Your task to perform on an android device: check google app version Image 0: 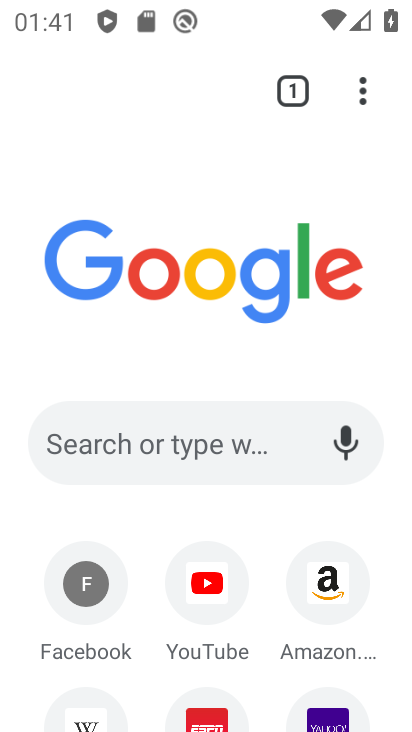
Step 0: press home button
Your task to perform on an android device: check google app version Image 1: 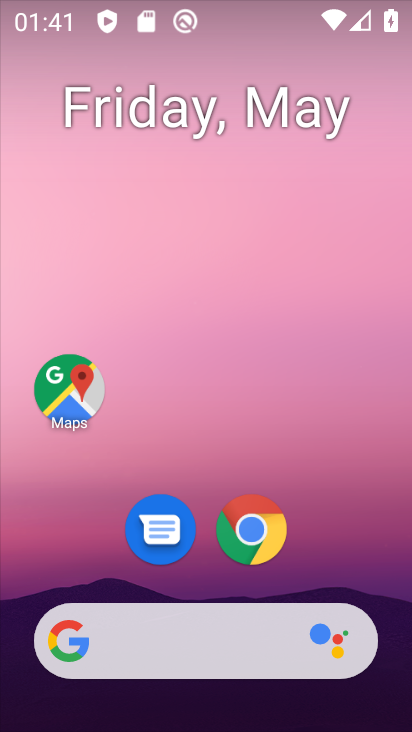
Step 1: drag from (338, 531) to (329, 96)
Your task to perform on an android device: check google app version Image 2: 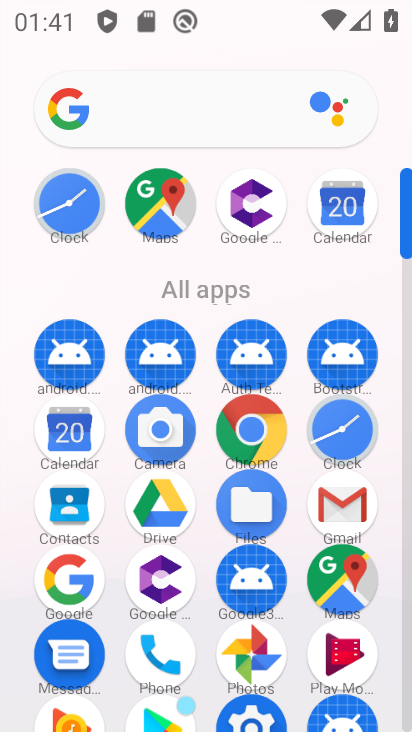
Step 2: click (76, 587)
Your task to perform on an android device: check google app version Image 3: 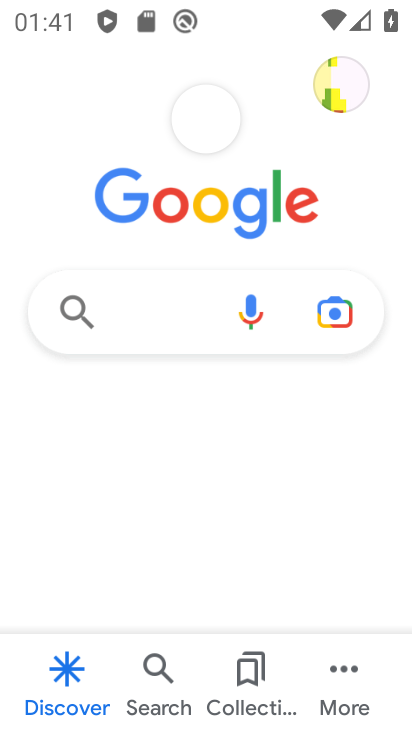
Step 3: click (337, 689)
Your task to perform on an android device: check google app version Image 4: 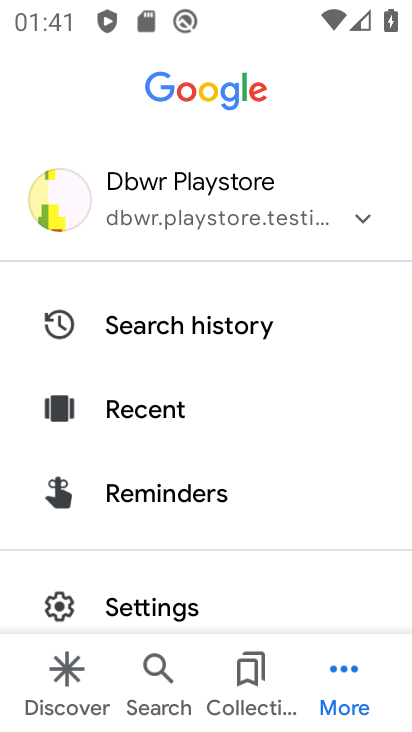
Step 4: drag from (195, 518) to (220, 279)
Your task to perform on an android device: check google app version Image 5: 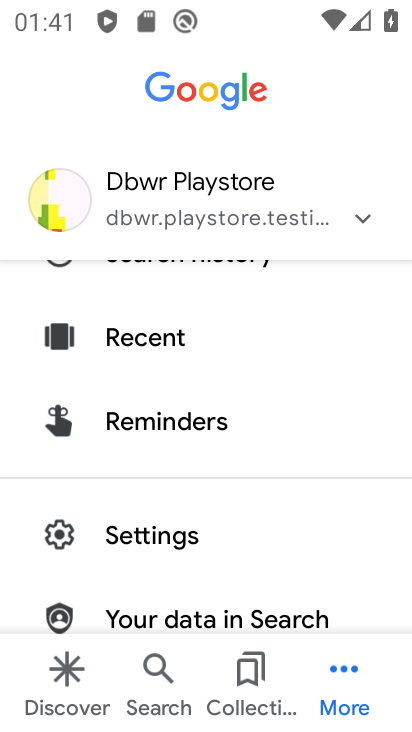
Step 5: click (67, 534)
Your task to perform on an android device: check google app version Image 6: 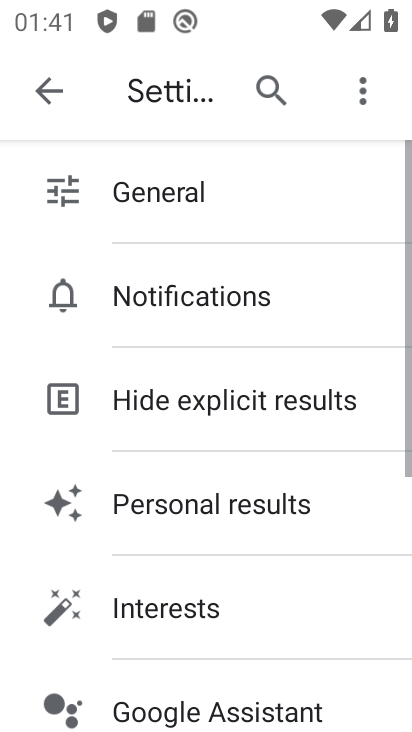
Step 6: drag from (203, 555) to (217, 49)
Your task to perform on an android device: check google app version Image 7: 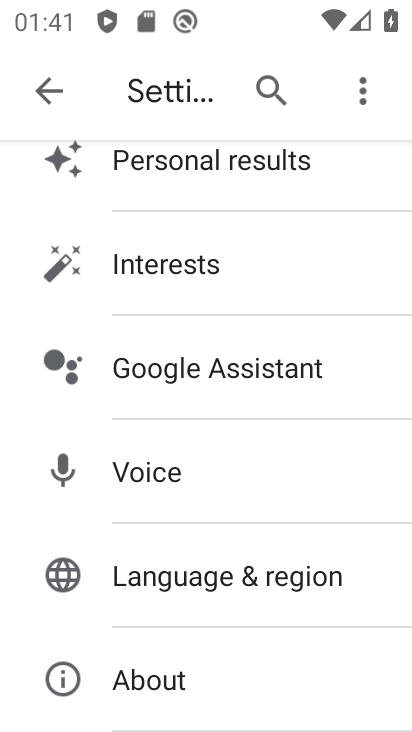
Step 7: click (193, 688)
Your task to perform on an android device: check google app version Image 8: 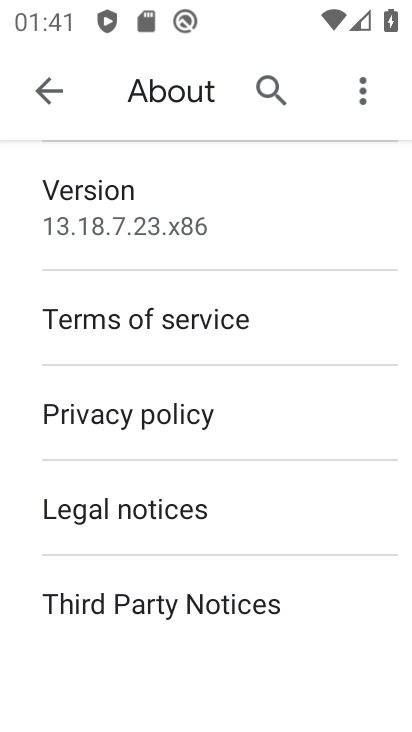
Step 8: task complete